Your task to perform on an android device: toggle airplane mode Image 0: 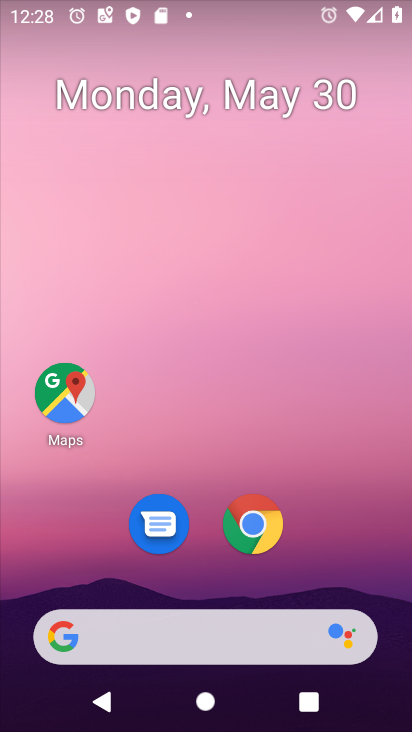
Step 0: drag from (209, 462) to (231, 4)
Your task to perform on an android device: toggle airplane mode Image 1: 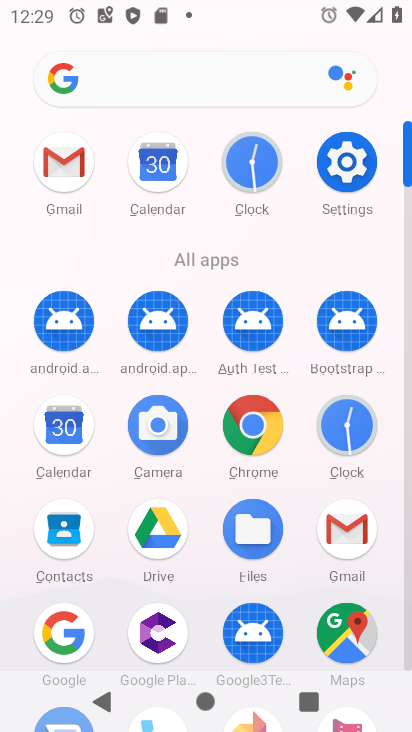
Step 1: click (358, 166)
Your task to perform on an android device: toggle airplane mode Image 2: 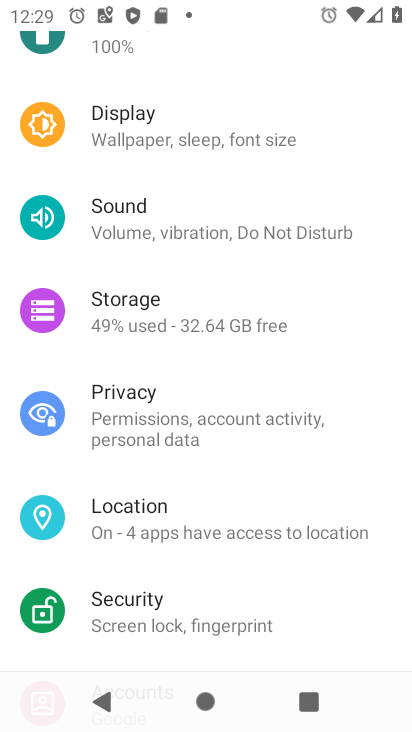
Step 2: drag from (214, 181) to (240, 649)
Your task to perform on an android device: toggle airplane mode Image 3: 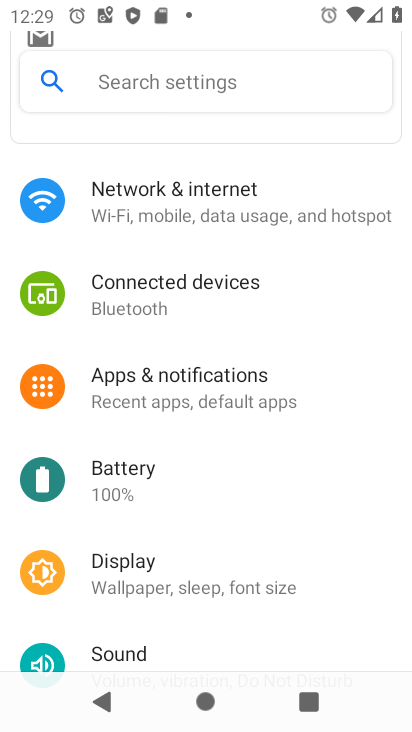
Step 3: click (233, 198)
Your task to perform on an android device: toggle airplane mode Image 4: 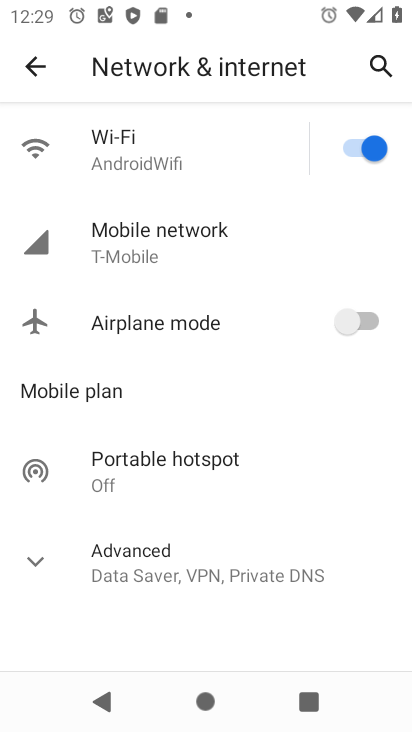
Step 4: click (354, 319)
Your task to perform on an android device: toggle airplane mode Image 5: 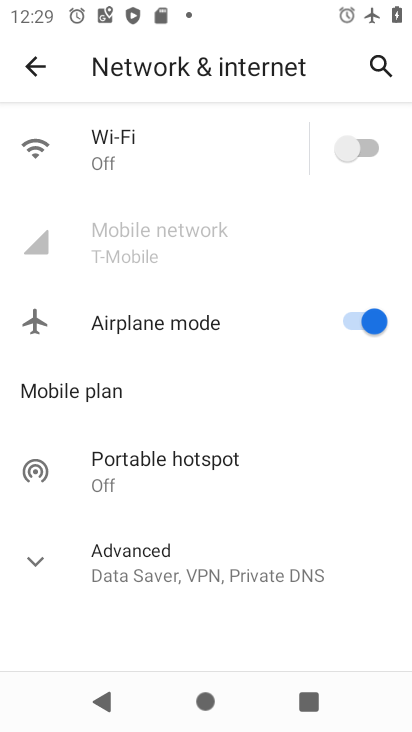
Step 5: task complete